Your task to perform on an android device: Go to Wikipedia Image 0: 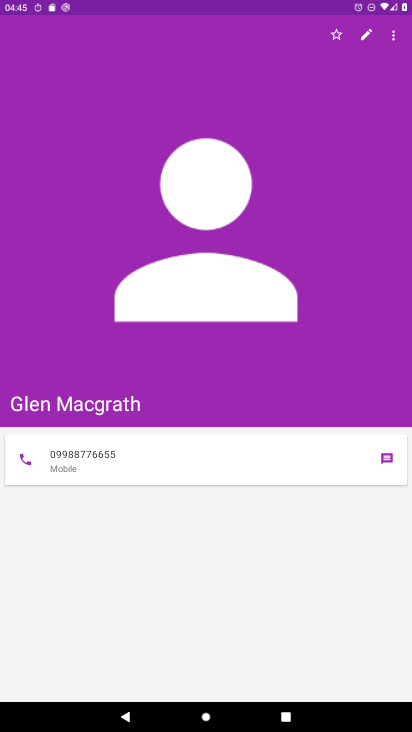
Step 0: press home button
Your task to perform on an android device: Go to Wikipedia Image 1: 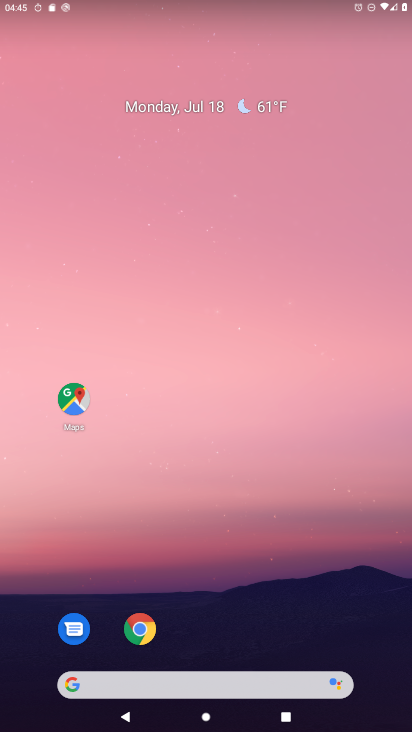
Step 1: click (140, 631)
Your task to perform on an android device: Go to Wikipedia Image 2: 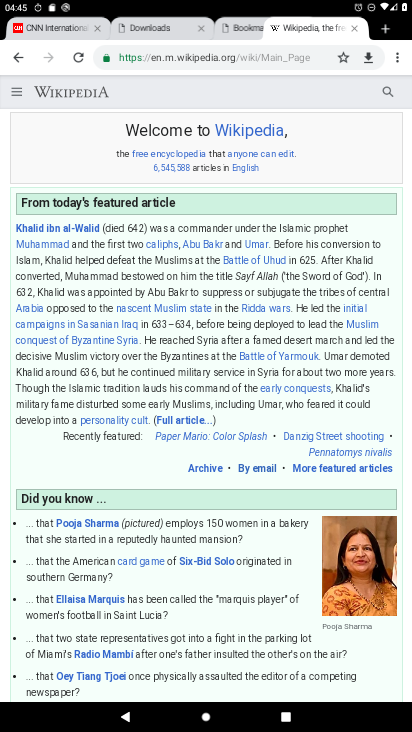
Step 2: task complete